Your task to perform on an android device: Set the phone to "Do not disturb". Image 0: 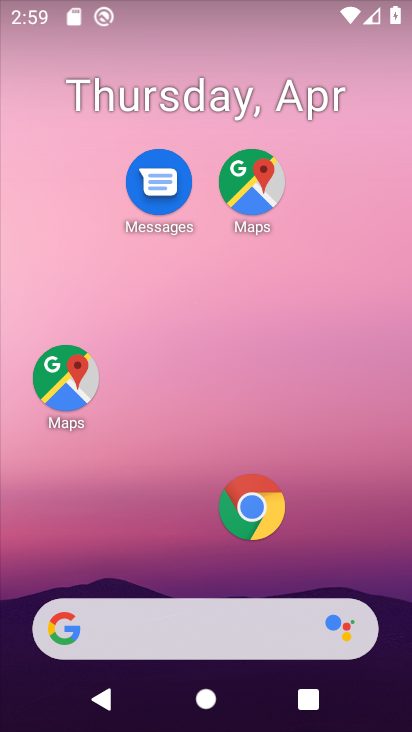
Step 0: drag from (177, 499) to (307, 20)
Your task to perform on an android device: Set the phone to "Do not disturb". Image 1: 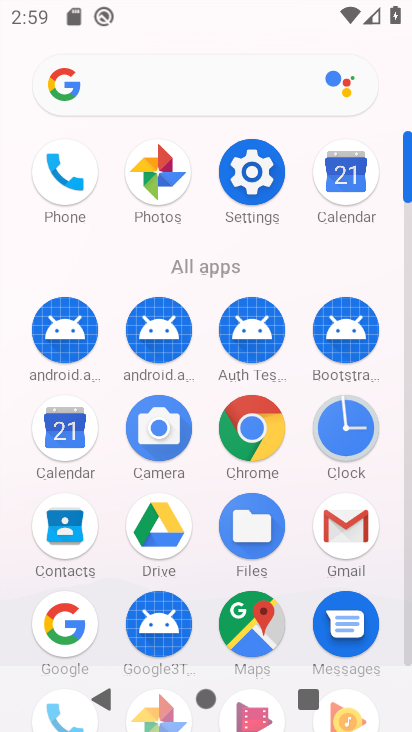
Step 1: click (252, 194)
Your task to perform on an android device: Set the phone to "Do not disturb". Image 2: 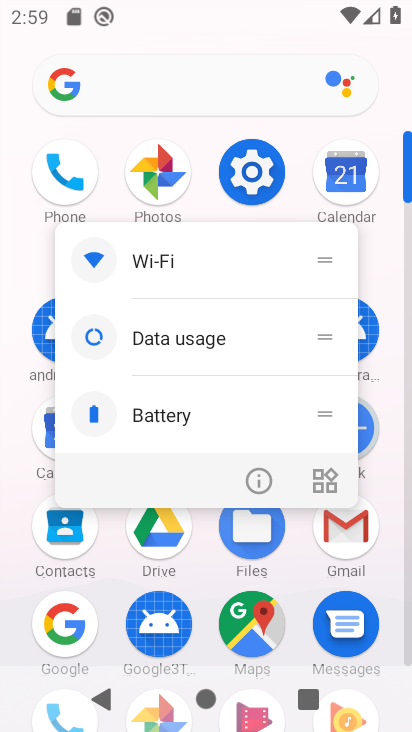
Step 2: click (249, 175)
Your task to perform on an android device: Set the phone to "Do not disturb". Image 3: 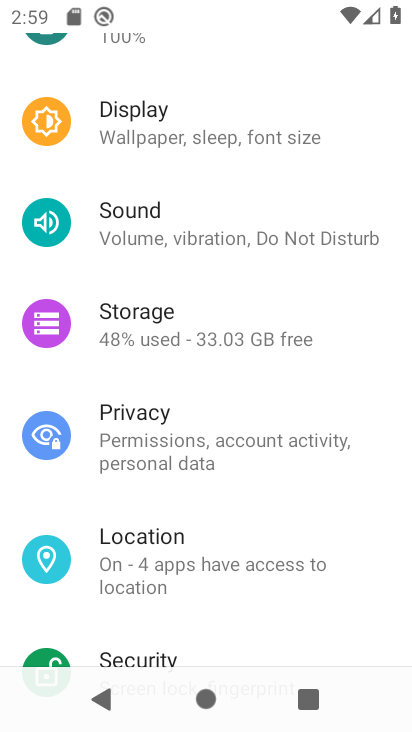
Step 3: click (194, 234)
Your task to perform on an android device: Set the phone to "Do not disturb". Image 4: 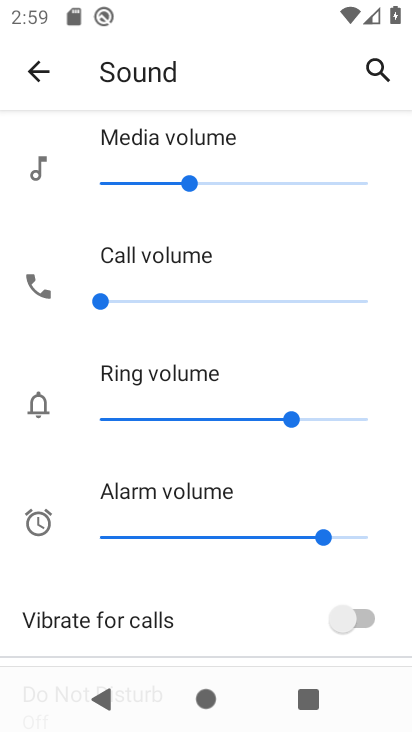
Step 4: drag from (147, 452) to (195, 302)
Your task to perform on an android device: Set the phone to "Do not disturb". Image 5: 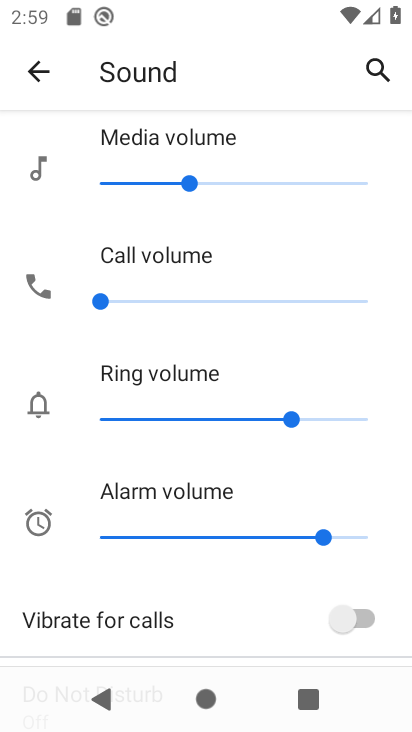
Step 5: drag from (222, 602) to (268, 293)
Your task to perform on an android device: Set the phone to "Do not disturb". Image 6: 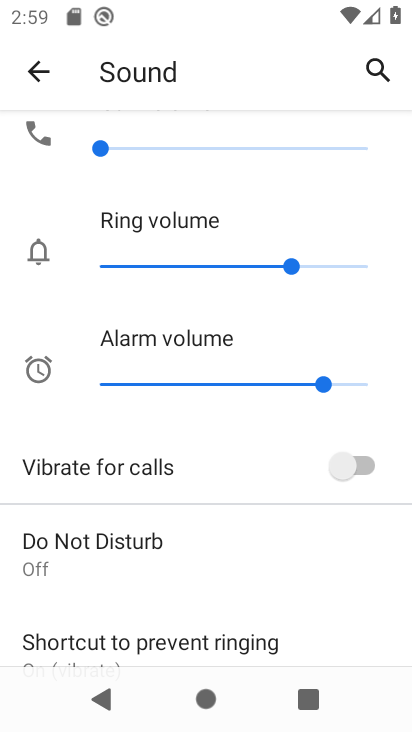
Step 6: click (113, 551)
Your task to perform on an android device: Set the phone to "Do not disturb". Image 7: 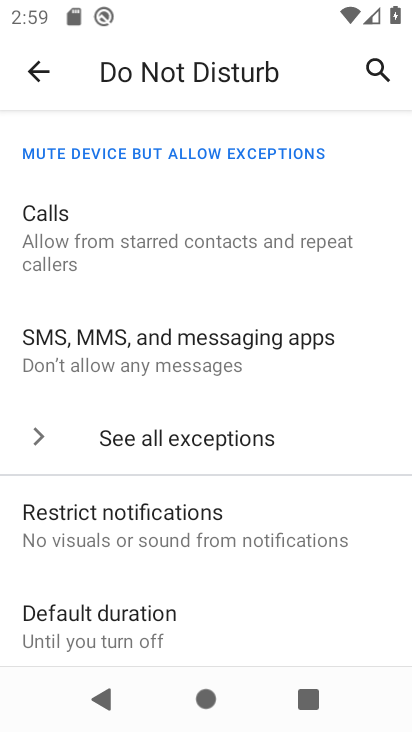
Step 7: drag from (169, 602) to (247, 193)
Your task to perform on an android device: Set the phone to "Do not disturb". Image 8: 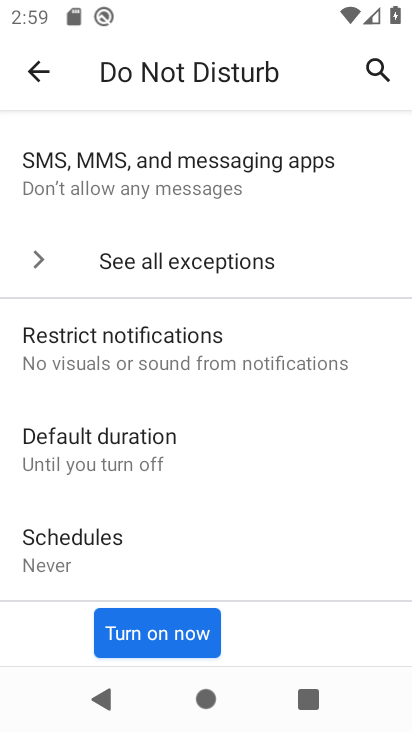
Step 8: click (165, 625)
Your task to perform on an android device: Set the phone to "Do not disturb". Image 9: 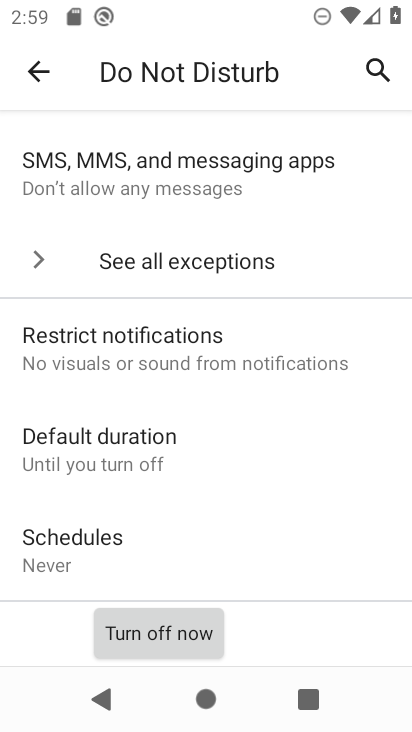
Step 9: task complete